Your task to perform on an android device: Open network settings Image 0: 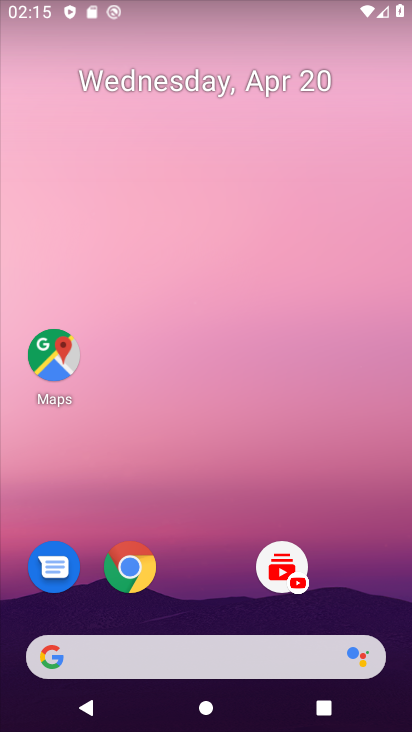
Step 0: drag from (199, 469) to (159, 33)
Your task to perform on an android device: Open network settings Image 1: 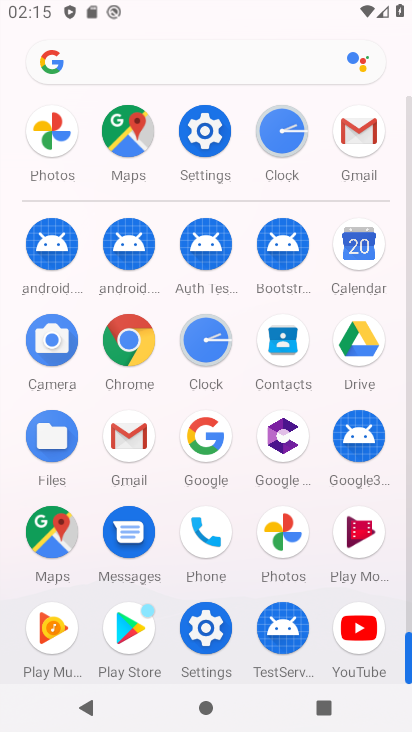
Step 1: click (223, 634)
Your task to perform on an android device: Open network settings Image 2: 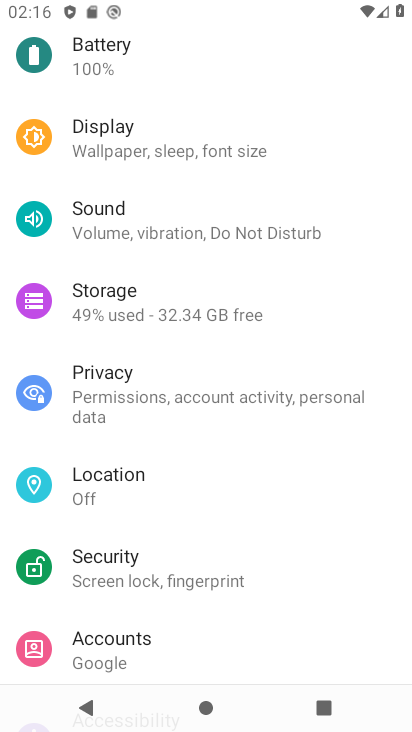
Step 2: drag from (104, 140) to (351, 701)
Your task to perform on an android device: Open network settings Image 3: 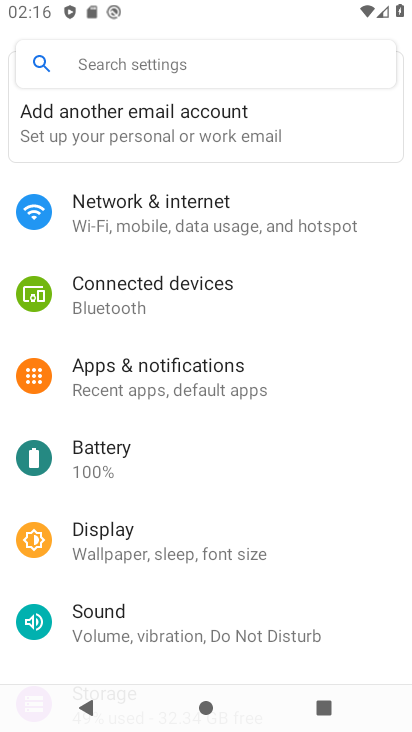
Step 3: click (174, 233)
Your task to perform on an android device: Open network settings Image 4: 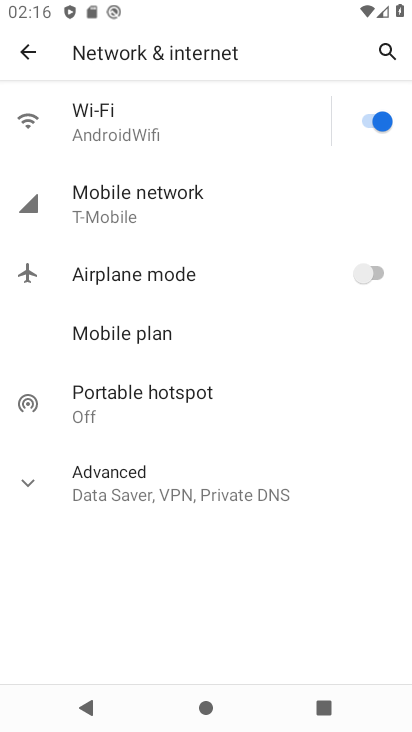
Step 4: task complete